Your task to perform on an android device: check the backup settings in the google photos Image 0: 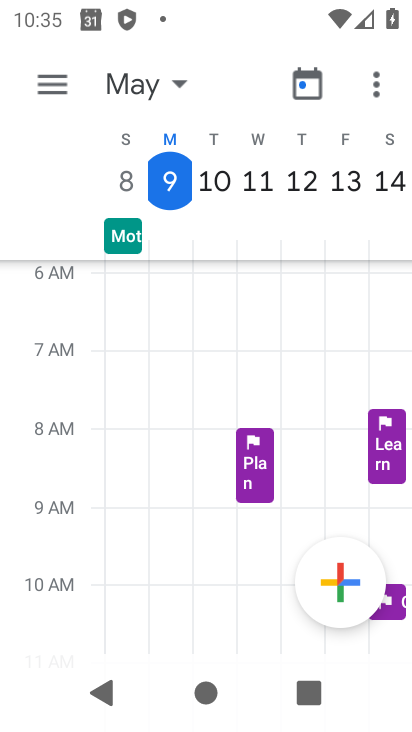
Step 0: press home button
Your task to perform on an android device: check the backup settings in the google photos Image 1: 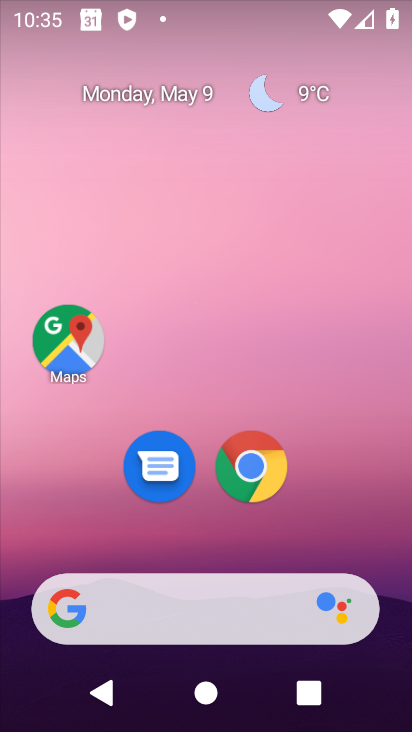
Step 1: drag from (243, 373) to (194, 22)
Your task to perform on an android device: check the backup settings in the google photos Image 2: 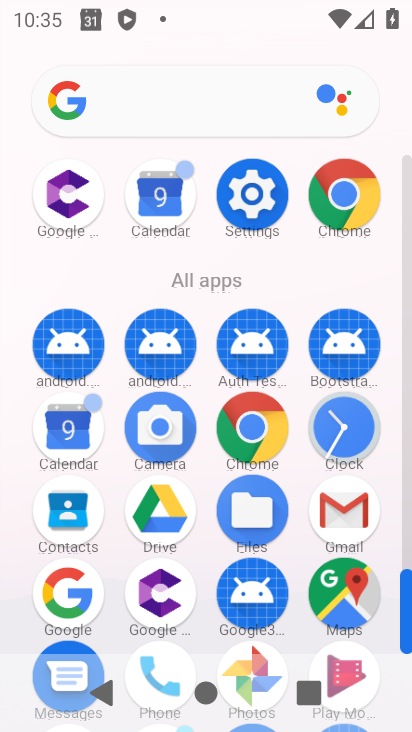
Step 2: drag from (191, 267) to (182, 31)
Your task to perform on an android device: check the backup settings in the google photos Image 3: 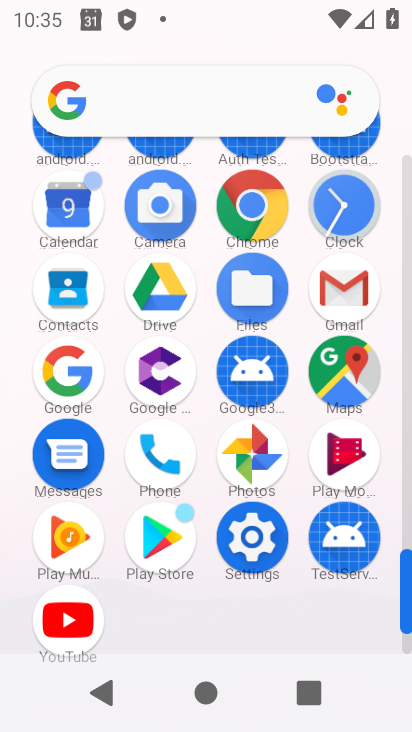
Step 3: click (250, 464)
Your task to perform on an android device: check the backup settings in the google photos Image 4: 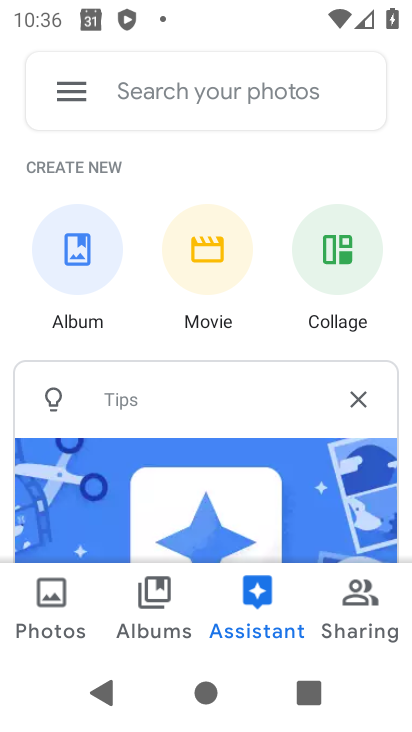
Step 4: click (54, 82)
Your task to perform on an android device: check the backup settings in the google photos Image 5: 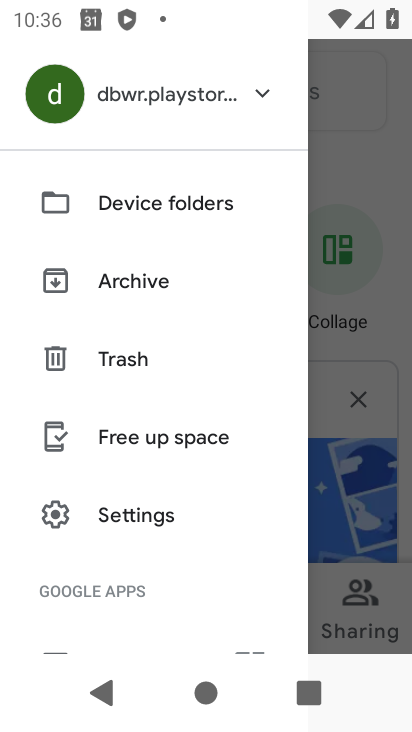
Step 5: click (164, 516)
Your task to perform on an android device: check the backup settings in the google photos Image 6: 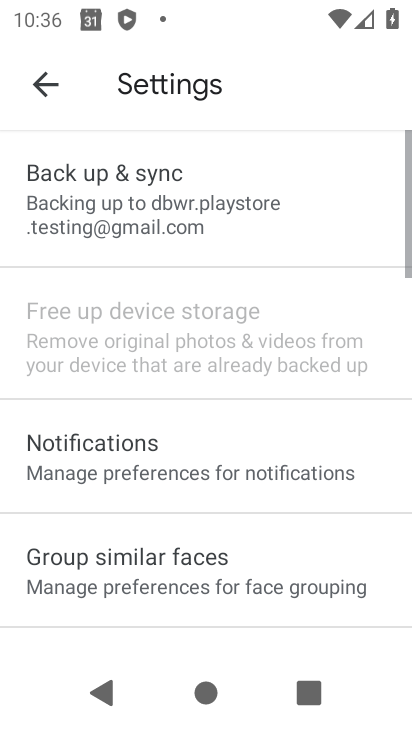
Step 6: click (120, 208)
Your task to perform on an android device: check the backup settings in the google photos Image 7: 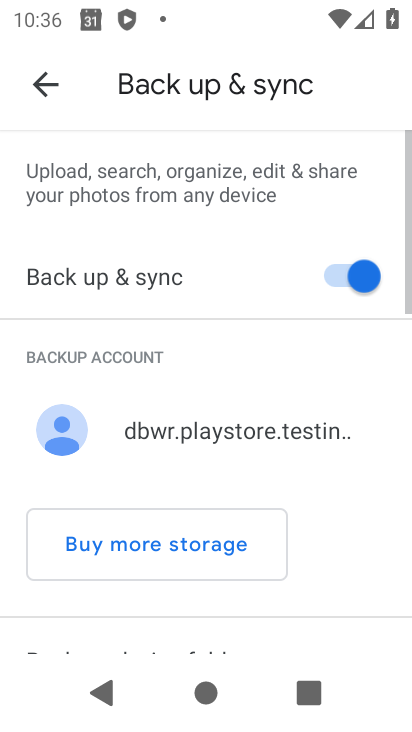
Step 7: task complete